Your task to perform on an android device: open app "Expedia: Hotels, Flights & Car" (install if not already installed), go to login, and select forgot password Image 0: 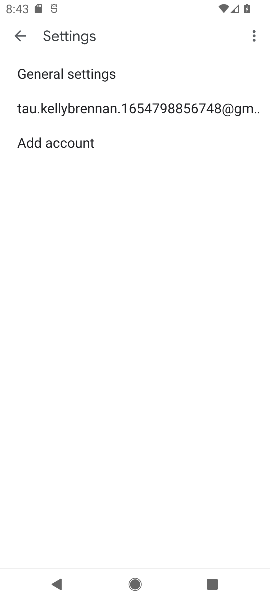
Step 0: press home button
Your task to perform on an android device: open app "Expedia: Hotels, Flights & Car" (install if not already installed), go to login, and select forgot password Image 1: 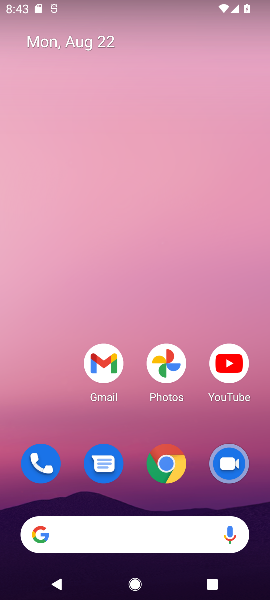
Step 1: drag from (130, 471) to (100, 1)
Your task to perform on an android device: open app "Expedia: Hotels, Flights & Car" (install if not already installed), go to login, and select forgot password Image 2: 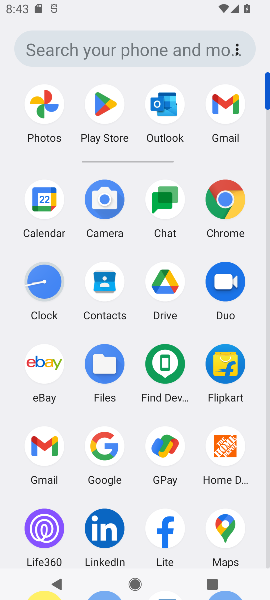
Step 2: click (101, 103)
Your task to perform on an android device: open app "Expedia: Hotels, Flights & Car" (install if not already installed), go to login, and select forgot password Image 3: 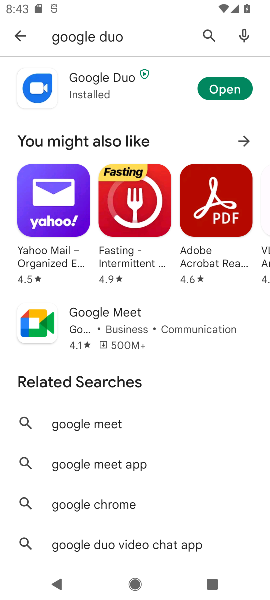
Step 3: click (25, 42)
Your task to perform on an android device: open app "Expedia: Hotels, Flights & Car" (install if not already installed), go to login, and select forgot password Image 4: 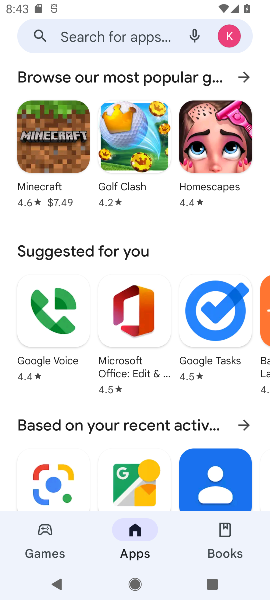
Step 4: click (79, 31)
Your task to perform on an android device: open app "Expedia: Hotels, Flights & Car" (install if not already installed), go to login, and select forgot password Image 5: 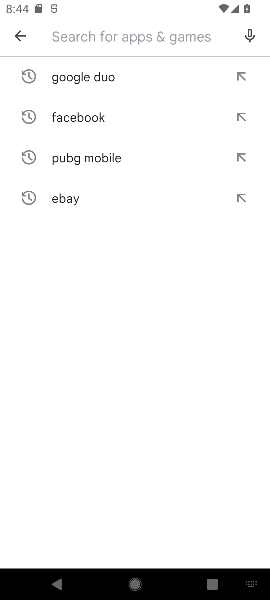
Step 5: click (109, 33)
Your task to perform on an android device: open app "Expedia: Hotels, Flights & Car" (install if not already installed), go to login, and select forgot password Image 6: 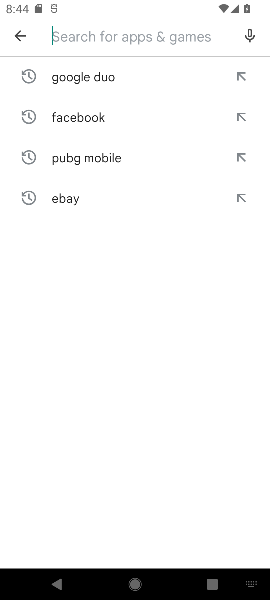
Step 6: type "Expedia: Hotels, Flights & Car"
Your task to perform on an android device: open app "Expedia: Hotels, Flights & Car" (install if not already installed), go to login, and select forgot password Image 7: 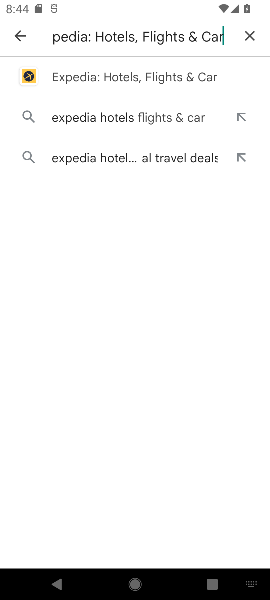
Step 7: click (126, 77)
Your task to perform on an android device: open app "Expedia: Hotels, Flights & Car" (install if not already installed), go to login, and select forgot password Image 8: 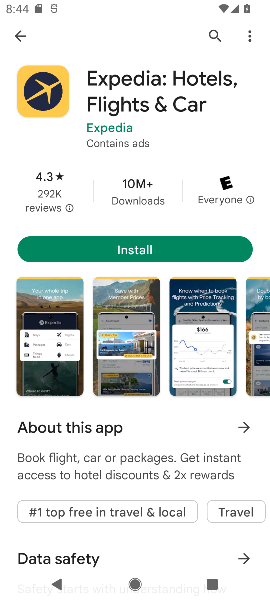
Step 8: click (122, 252)
Your task to perform on an android device: open app "Expedia: Hotels, Flights & Car" (install if not already installed), go to login, and select forgot password Image 9: 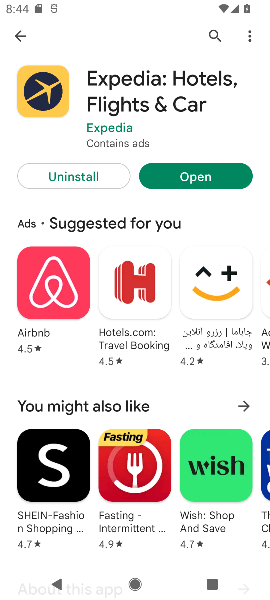
Step 9: click (185, 180)
Your task to perform on an android device: open app "Expedia: Hotels, Flights & Car" (install if not already installed), go to login, and select forgot password Image 10: 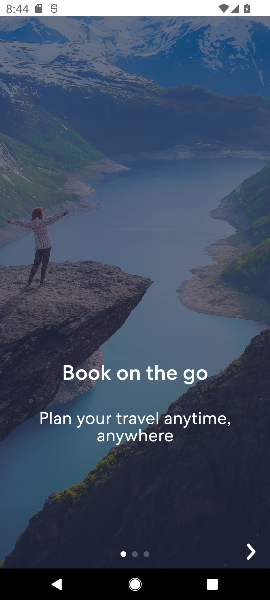
Step 10: task complete